Your task to perform on an android device: search for starred emails in the gmail app Image 0: 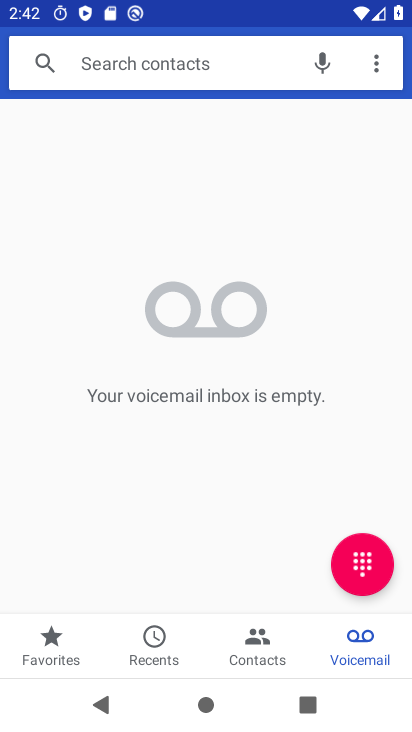
Step 0: press home button
Your task to perform on an android device: search for starred emails in the gmail app Image 1: 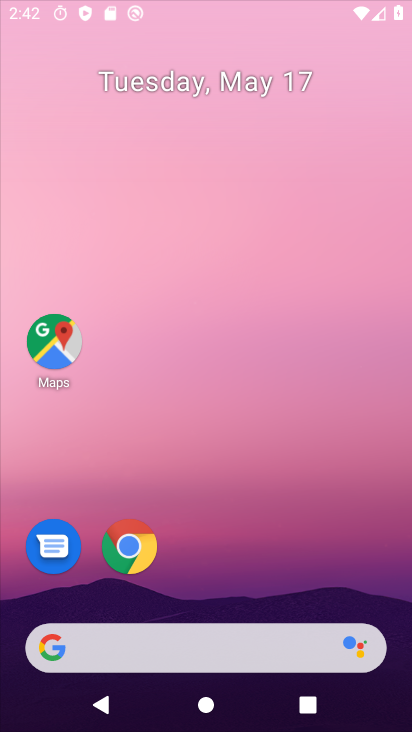
Step 1: drag from (200, 464) to (203, 105)
Your task to perform on an android device: search for starred emails in the gmail app Image 2: 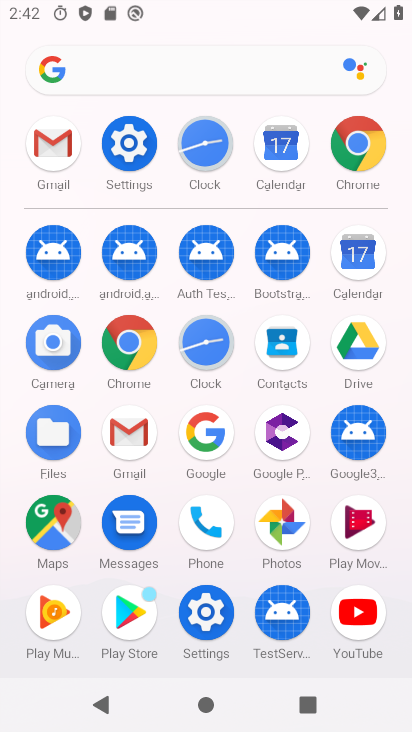
Step 2: click (130, 456)
Your task to perform on an android device: search for starred emails in the gmail app Image 3: 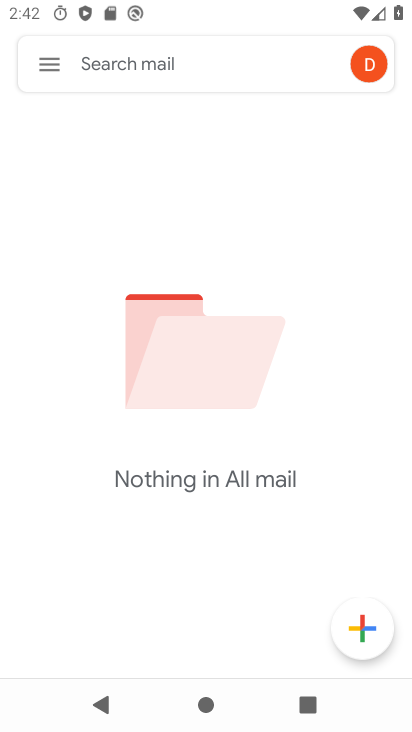
Step 3: click (43, 72)
Your task to perform on an android device: search for starred emails in the gmail app Image 4: 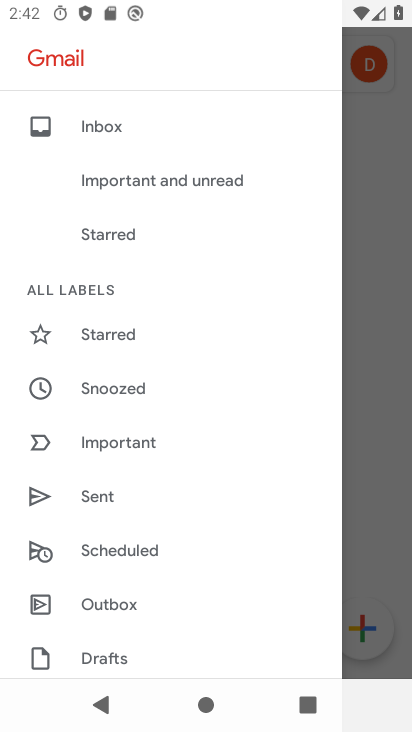
Step 4: drag from (174, 547) to (174, 169)
Your task to perform on an android device: search for starred emails in the gmail app Image 5: 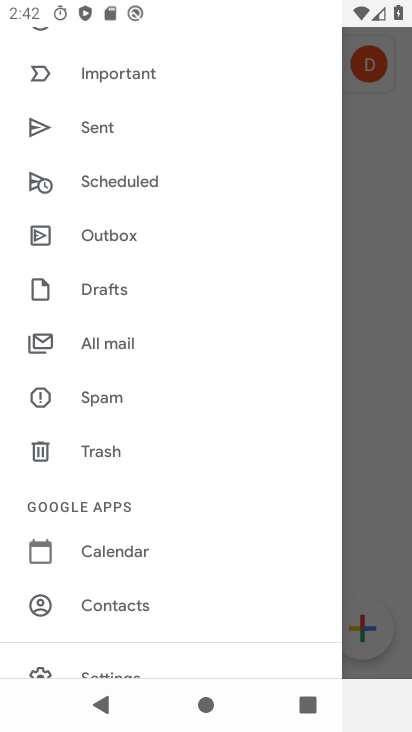
Step 5: drag from (123, 559) to (155, 111)
Your task to perform on an android device: search for starred emails in the gmail app Image 6: 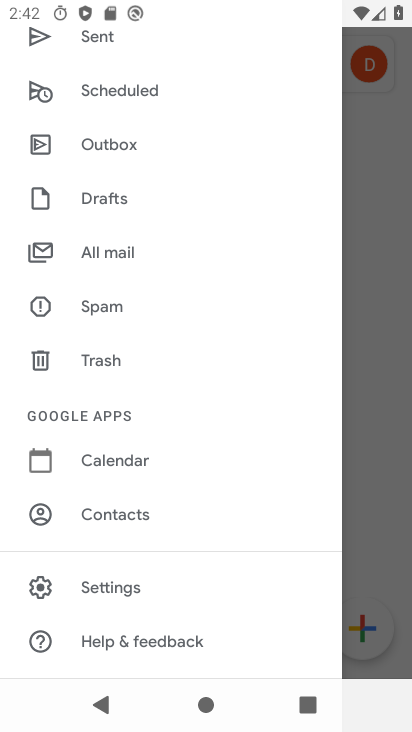
Step 6: drag from (177, 464) to (205, 169)
Your task to perform on an android device: search for starred emails in the gmail app Image 7: 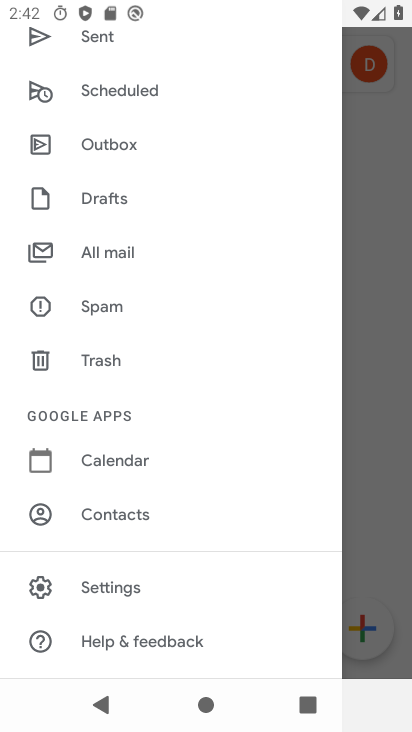
Step 7: drag from (126, 308) to (171, 669)
Your task to perform on an android device: search for starred emails in the gmail app Image 8: 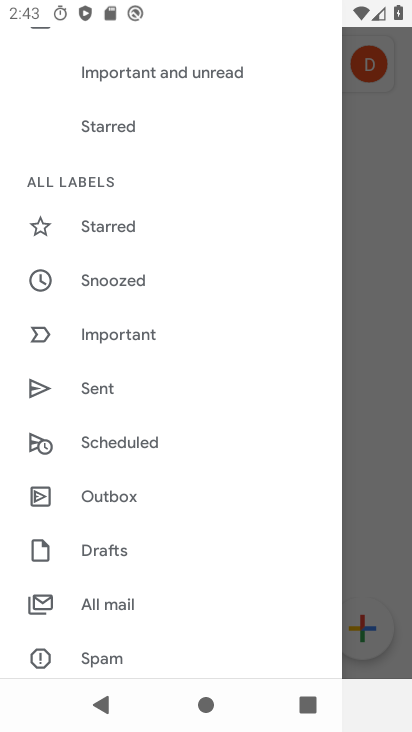
Step 8: click (130, 221)
Your task to perform on an android device: search for starred emails in the gmail app Image 9: 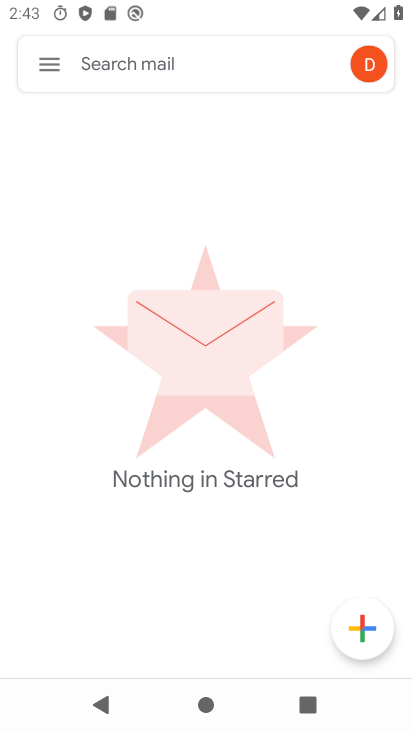
Step 9: task complete